Your task to perform on an android device: turn off picture-in-picture Image 0: 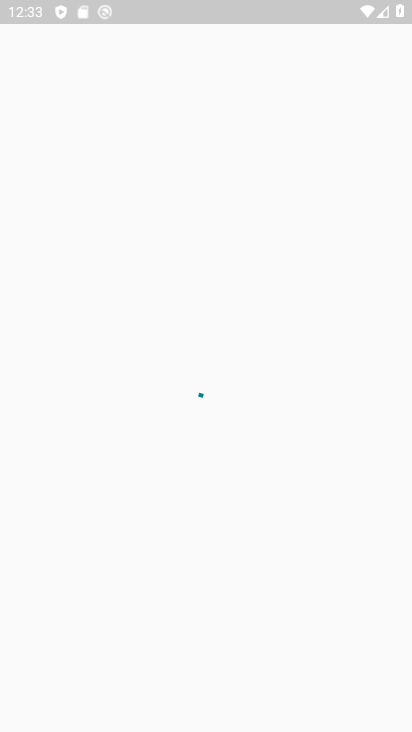
Step 0: press home button
Your task to perform on an android device: turn off picture-in-picture Image 1: 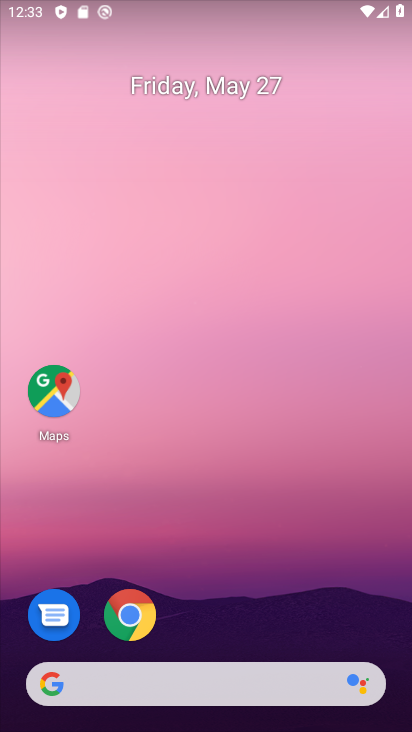
Step 1: drag from (213, 610) to (238, 193)
Your task to perform on an android device: turn off picture-in-picture Image 2: 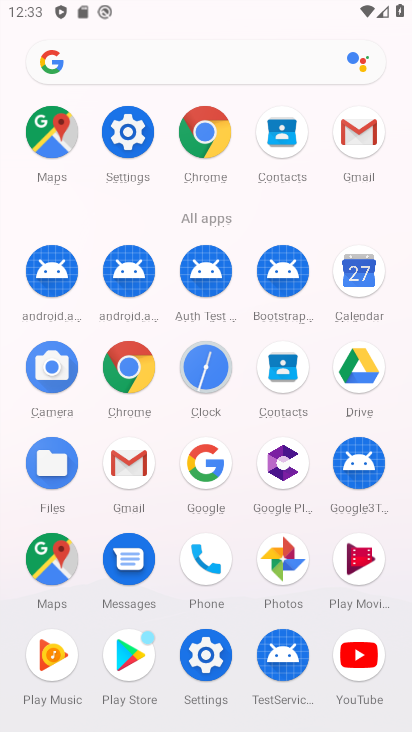
Step 2: click (221, 661)
Your task to perform on an android device: turn off picture-in-picture Image 3: 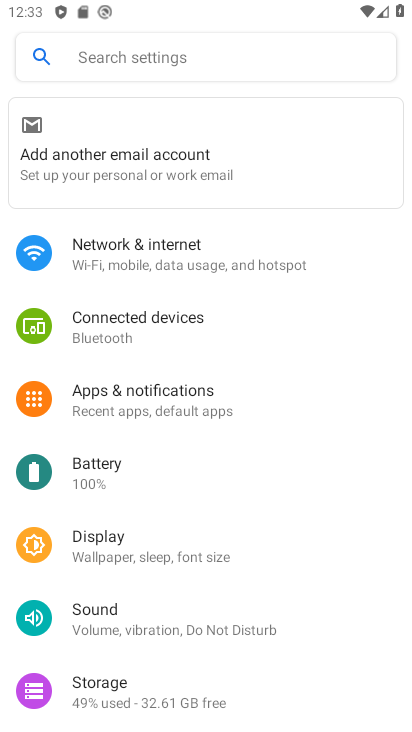
Step 3: click (177, 414)
Your task to perform on an android device: turn off picture-in-picture Image 4: 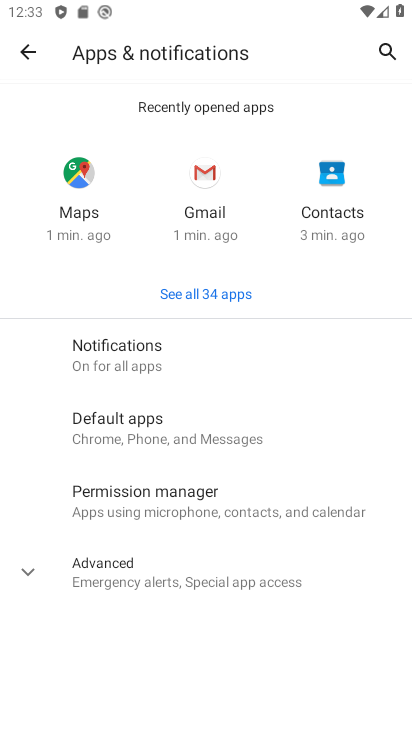
Step 4: click (174, 579)
Your task to perform on an android device: turn off picture-in-picture Image 5: 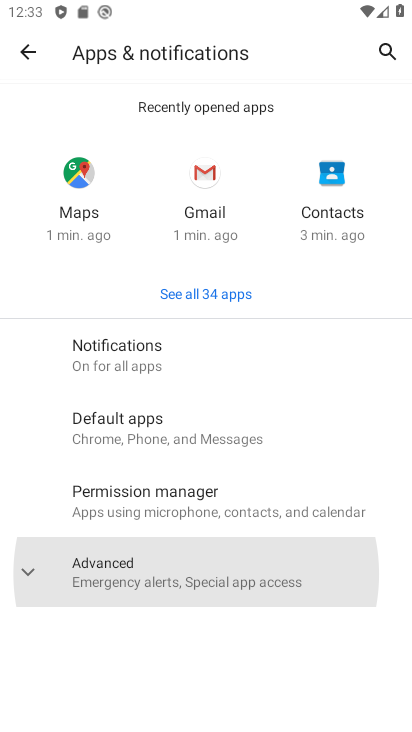
Step 5: drag from (174, 575) to (159, 228)
Your task to perform on an android device: turn off picture-in-picture Image 6: 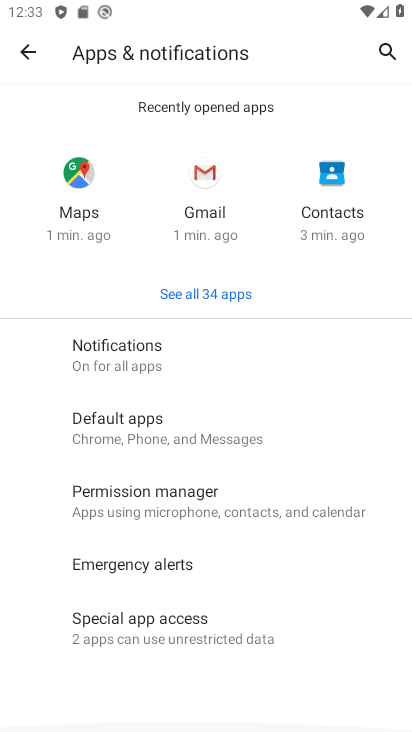
Step 6: click (161, 648)
Your task to perform on an android device: turn off picture-in-picture Image 7: 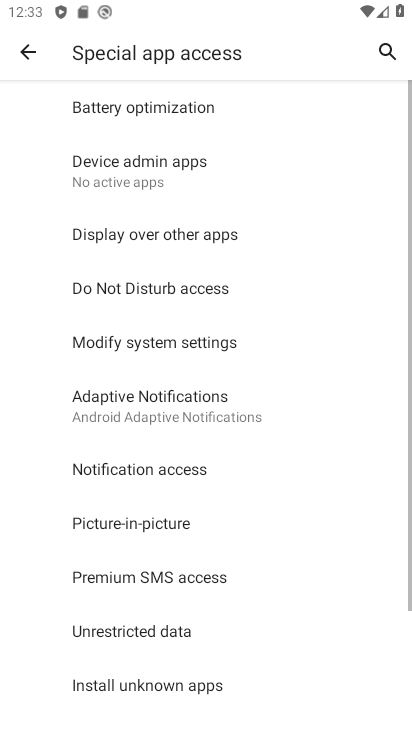
Step 7: drag from (166, 612) to (160, 231)
Your task to perform on an android device: turn off picture-in-picture Image 8: 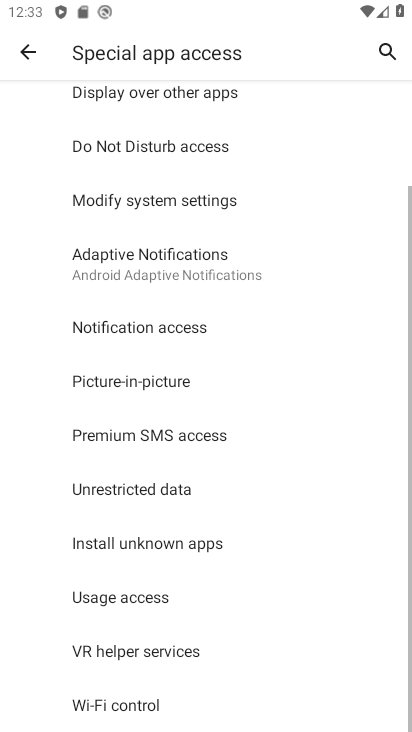
Step 8: drag from (148, 142) to (185, 556)
Your task to perform on an android device: turn off picture-in-picture Image 9: 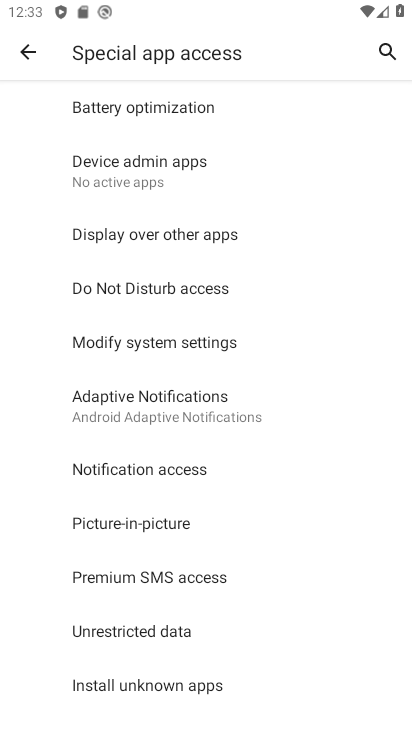
Step 9: drag from (358, 521) to (406, 490)
Your task to perform on an android device: turn off picture-in-picture Image 10: 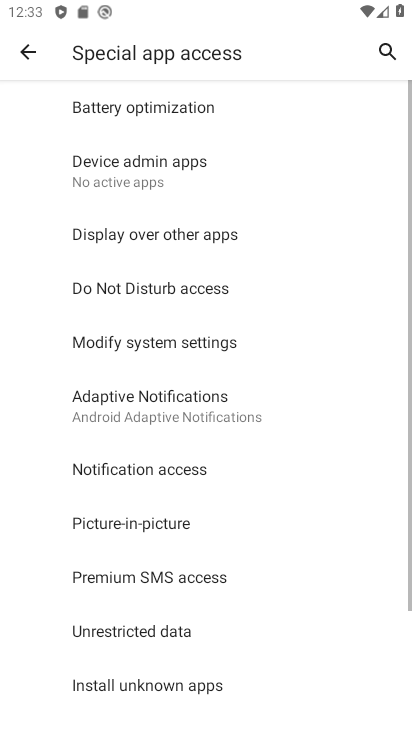
Step 10: click (220, 540)
Your task to perform on an android device: turn off picture-in-picture Image 11: 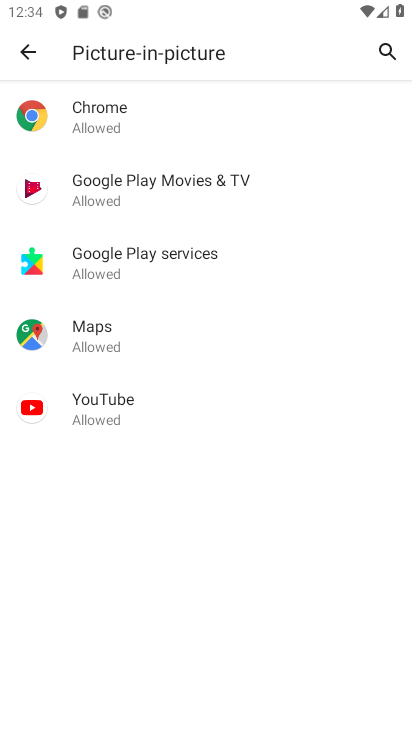
Step 11: click (169, 137)
Your task to perform on an android device: turn off picture-in-picture Image 12: 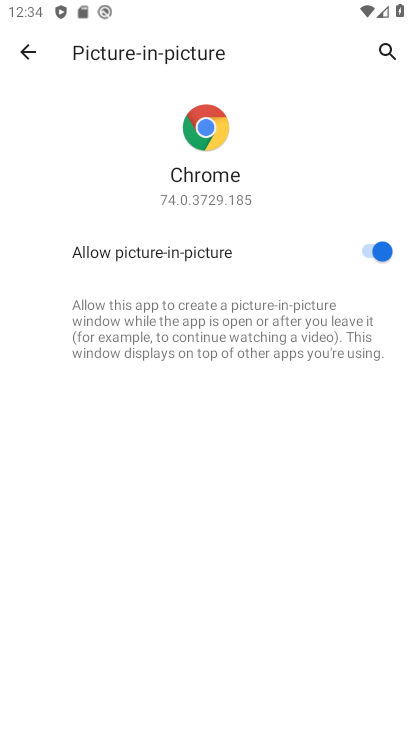
Step 12: click (382, 256)
Your task to perform on an android device: turn off picture-in-picture Image 13: 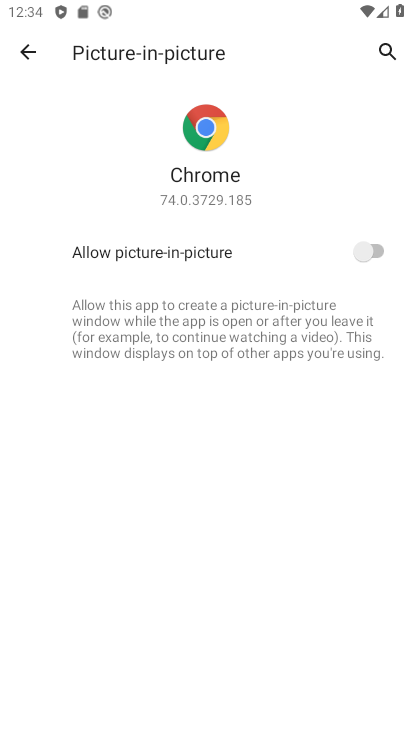
Step 13: task complete